Your task to perform on an android device: turn off improve location accuracy Image 0: 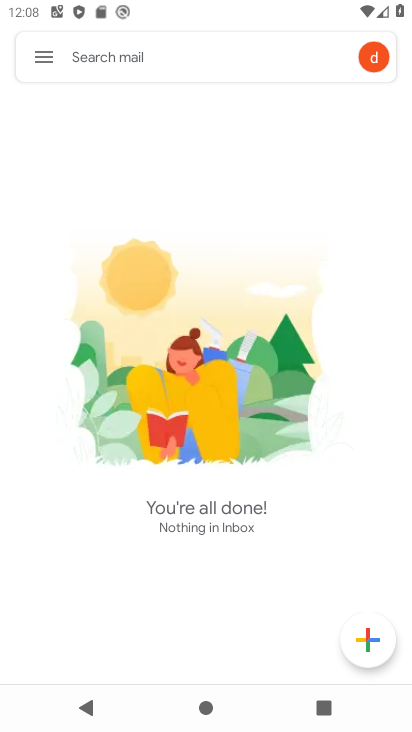
Step 0: press home button
Your task to perform on an android device: turn off improve location accuracy Image 1: 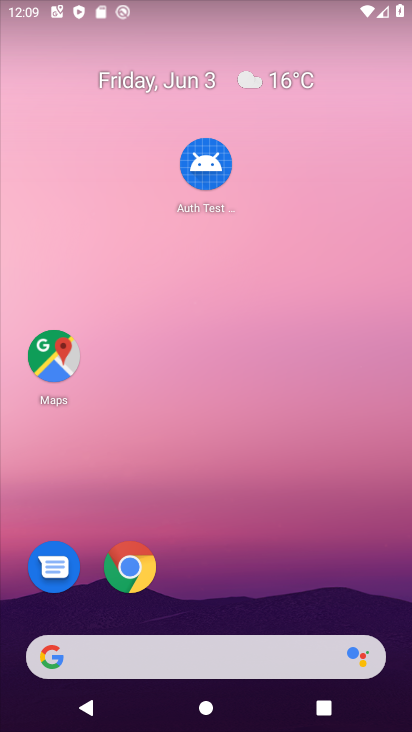
Step 1: drag from (220, 587) to (359, 100)
Your task to perform on an android device: turn off improve location accuracy Image 2: 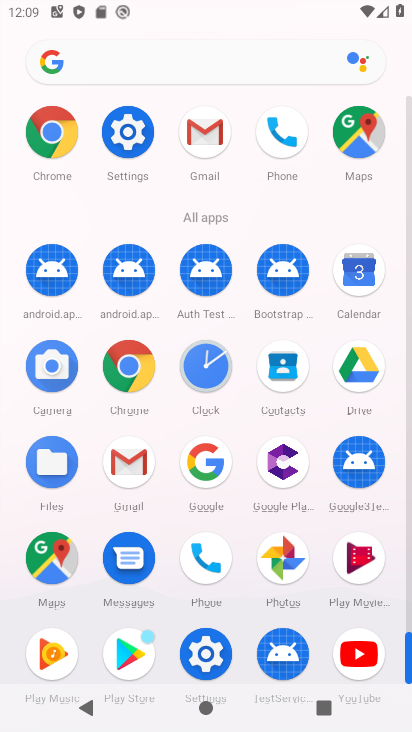
Step 2: click (112, 136)
Your task to perform on an android device: turn off improve location accuracy Image 3: 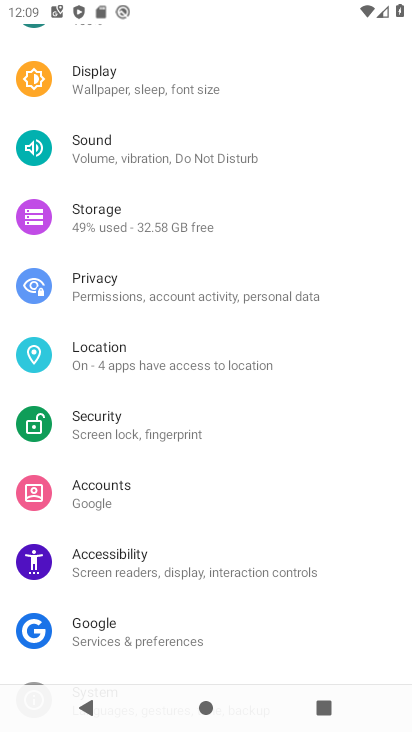
Step 3: click (153, 371)
Your task to perform on an android device: turn off improve location accuracy Image 4: 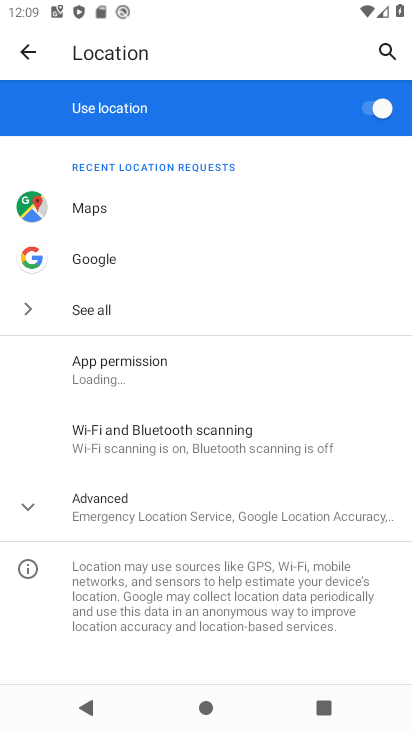
Step 4: click (123, 519)
Your task to perform on an android device: turn off improve location accuracy Image 5: 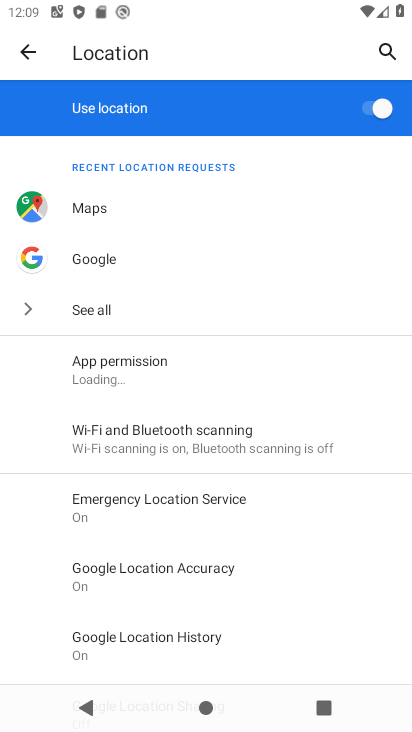
Step 5: click (173, 574)
Your task to perform on an android device: turn off improve location accuracy Image 6: 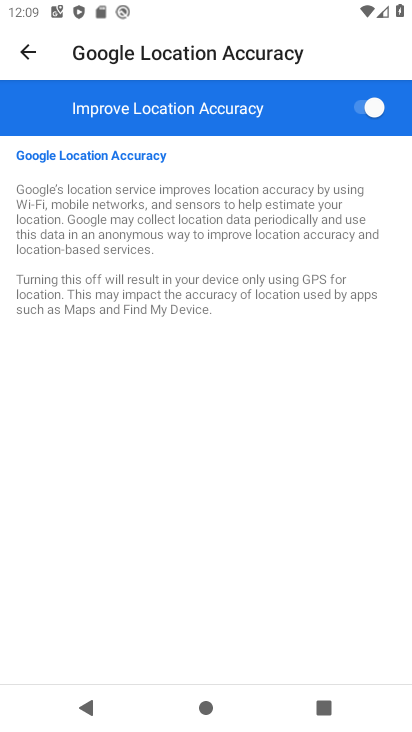
Step 6: click (367, 107)
Your task to perform on an android device: turn off improve location accuracy Image 7: 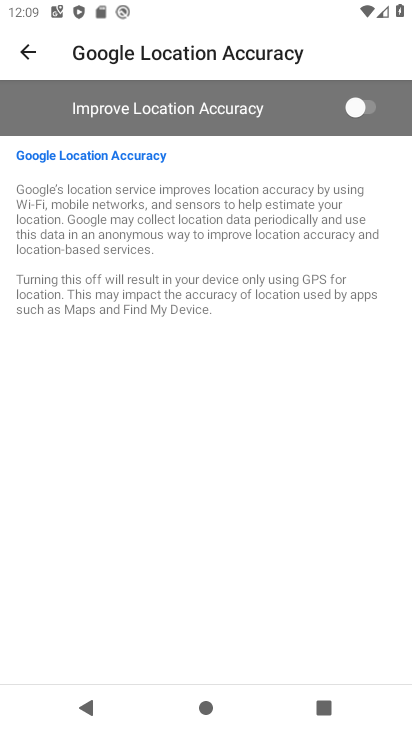
Step 7: task complete